Your task to perform on an android device: see tabs open on other devices in the chrome app Image 0: 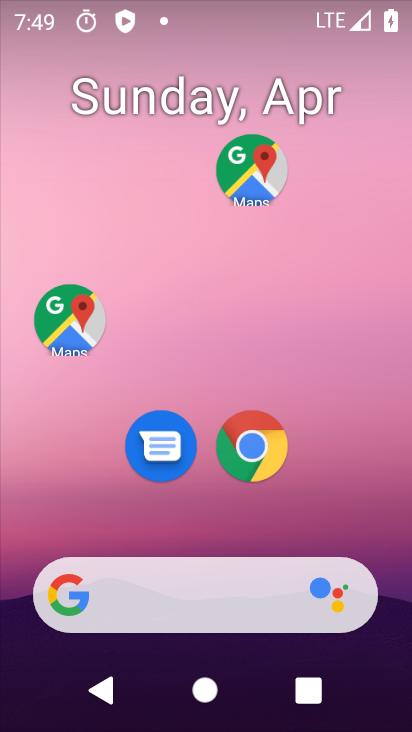
Step 0: drag from (228, 546) to (189, 100)
Your task to perform on an android device: see tabs open on other devices in the chrome app Image 1: 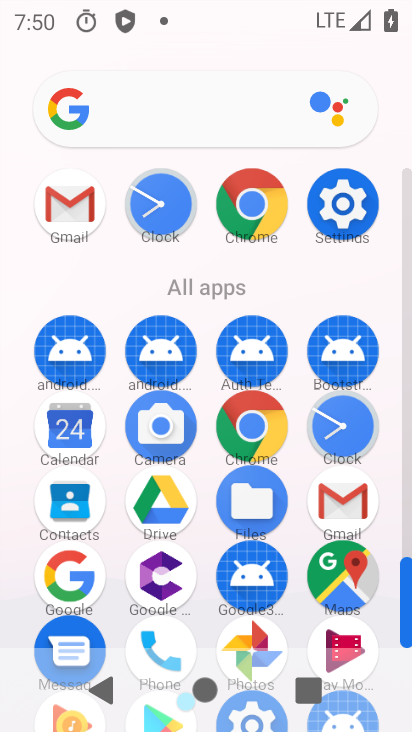
Step 1: click (260, 446)
Your task to perform on an android device: see tabs open on other devices in the chrome app Image 2: 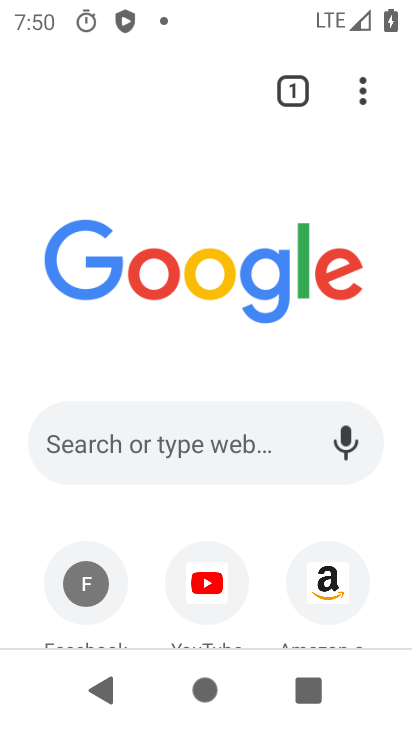
Step 2: click (285, 104)
Your task to perform on an android device: see tabs open on other devices in the chrome app Image 3: 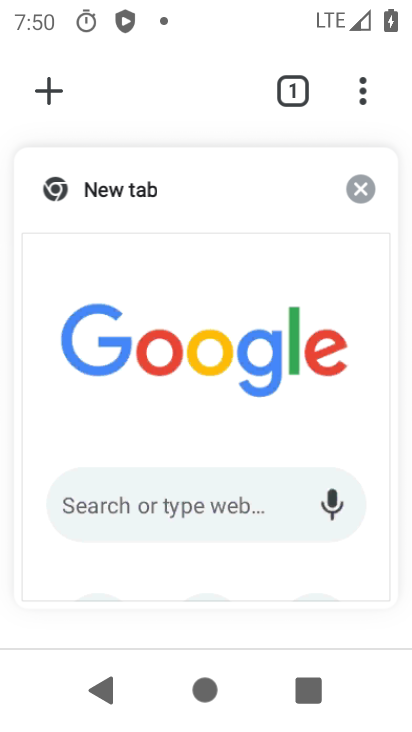
Step 3: click (45, 92)
Your task to perform on an android device: see tabs open on other devices in the chrome app Image 4: 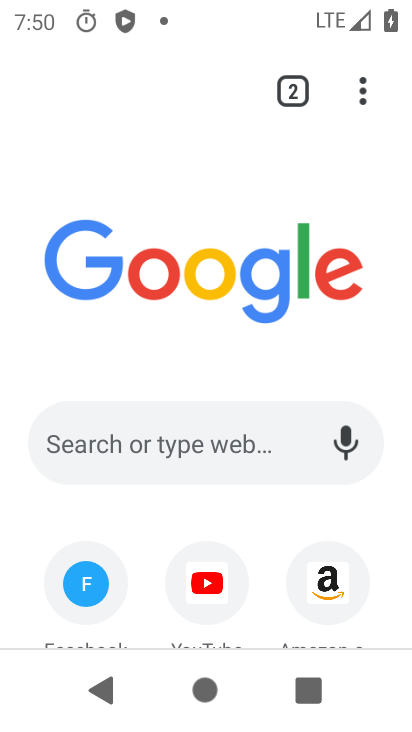
Step 4: click (285, 84)
Your task to perform on an android device: see tabs open on other devices in the chrome app Image 5: 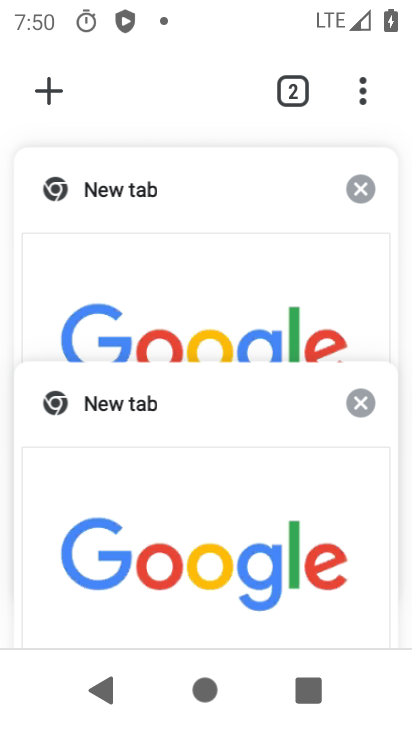
Step 5: task complete